Your task to perform on an android device: open chrome privacy settings Image 0: 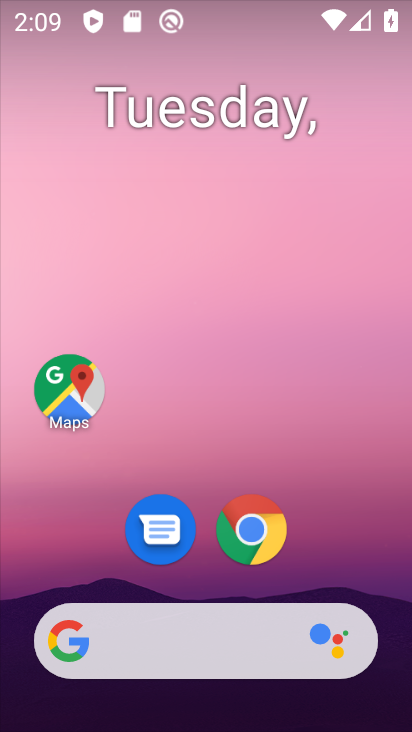
Step 0: drag from (388, 610) to (203, 110)
Your task to perform on an android device: open chrome privacy settings Image 1: 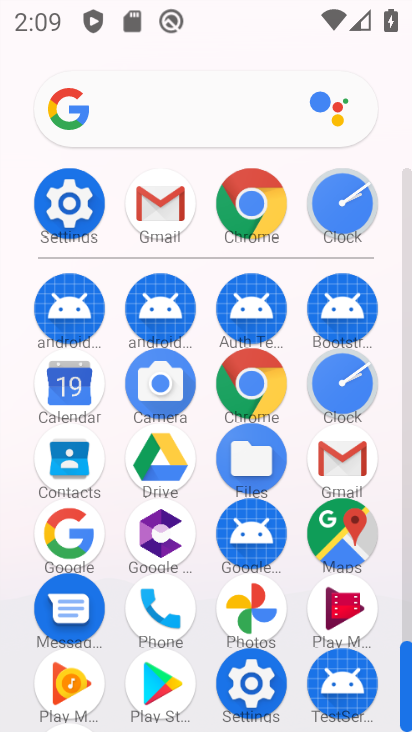
Step 1: click (252, 391)
Your task to perform on an android device: open chrome privacy settings Image 2: 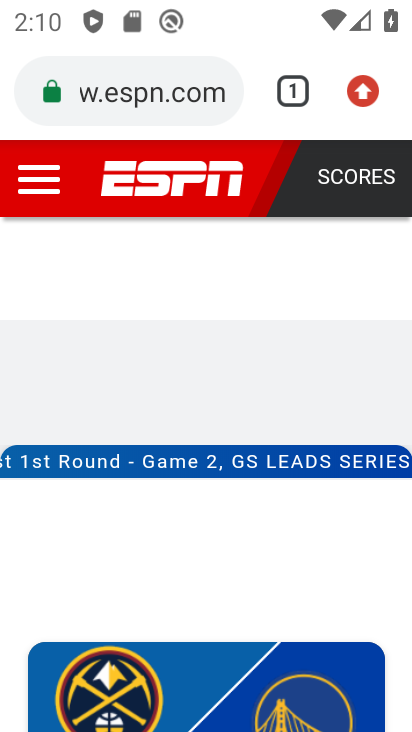
Step 2: press back button
Your task to perform on an android device: open chrome privacy settings Image 3: 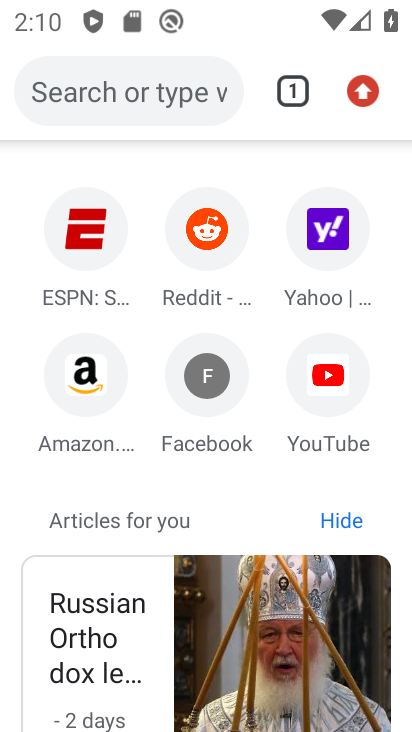
Step 3: click (355, 91)
Your task to perform on an android device: open chrome privacy settings Image 4: 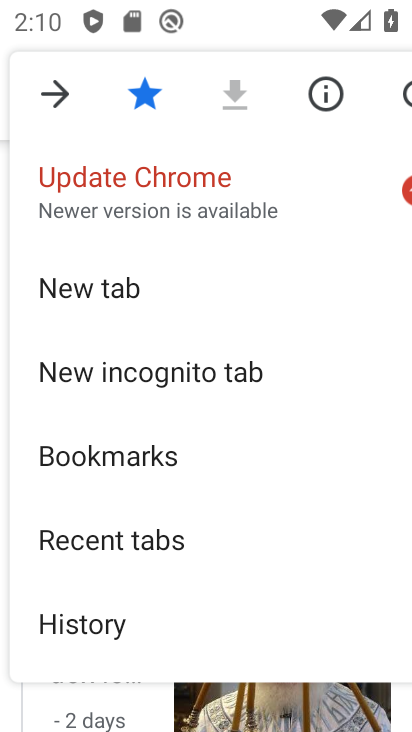
Step 4: drag from (159, 609) to (185, 208)
Your task to perform on an android device: open chrome privacy settings Image 5: 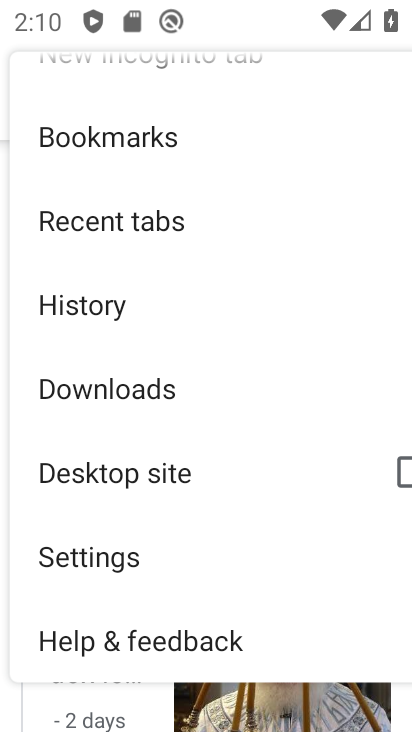
Step 5: click (112, 570)
Your task to perform on an android device: open chrome privacy settings Image 6: 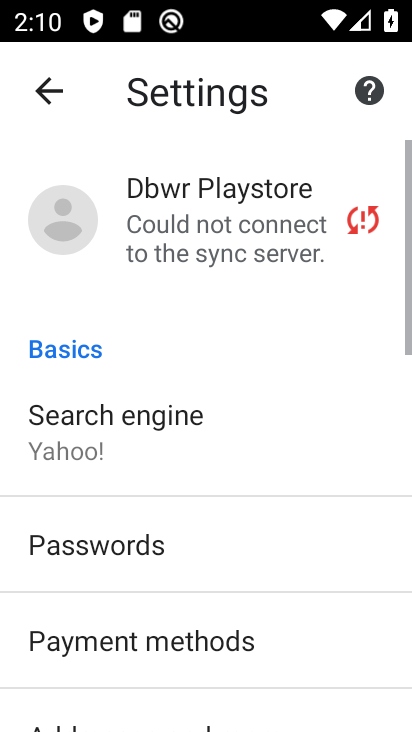
Step 6: drag from (105, 612) to (142, 127)
Your task to perform on an android device: open chrome privacy settings Image 7: 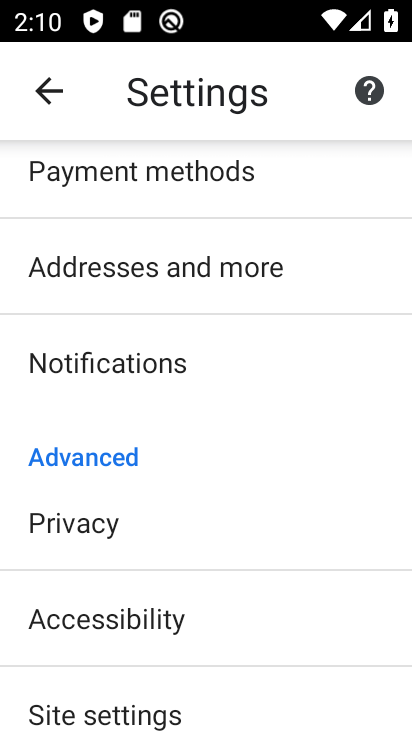
Step 7: click (33, 523)
Your task to perform on an android device: open chrome privacy settings Image 8: 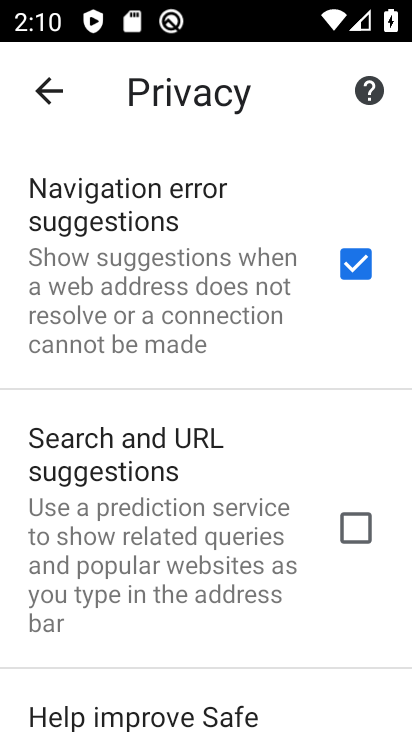
Step 8: task complete